Your task to perform on an android device: turn on airplane mode Image 0: 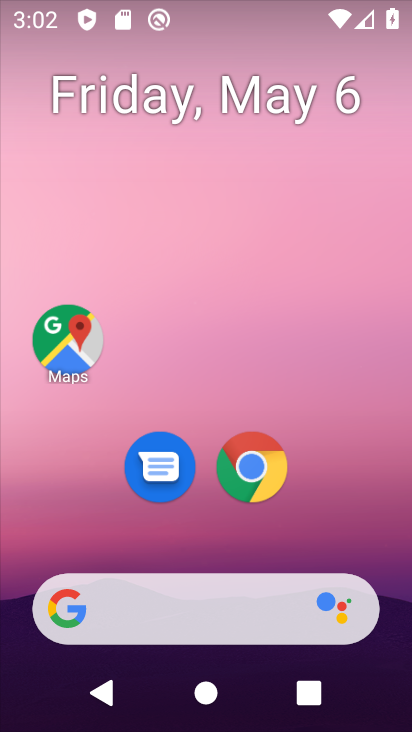
Step 0: drag from (401, 638) to (410, 674)
Your task to perform on an android device: turn on airplane mode Image 1: 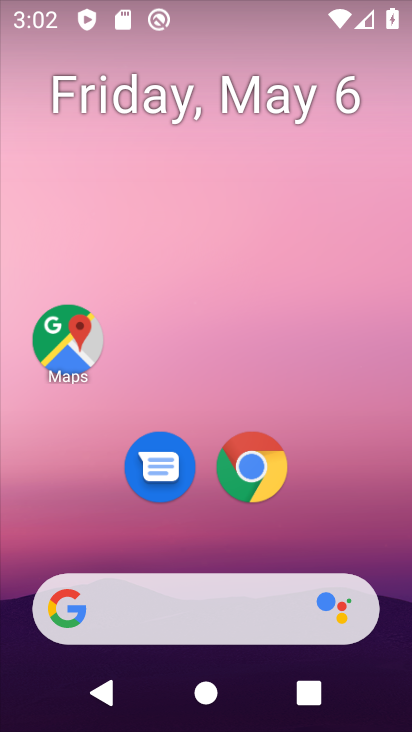
Step 1: drag from (396, 671) to (367, 231)
Your task to perform on an android device: turn on airplane mode Image 2: 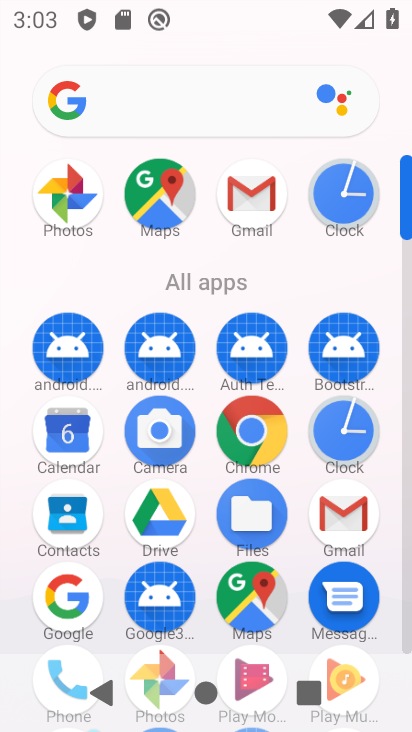
Step 2: click (406, 62)
Your task to perform on an android device: turn on airplane mode Image 3: 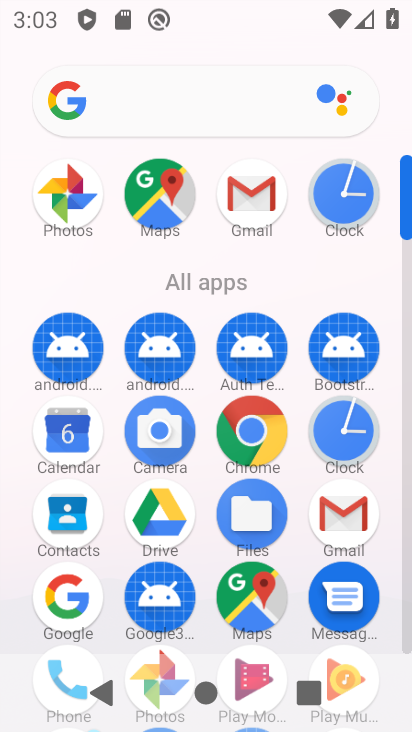
Step 3: drag from (403, 142) to (405, 58)
Your task to perform on an android device: turn on airplane mode Image 4: 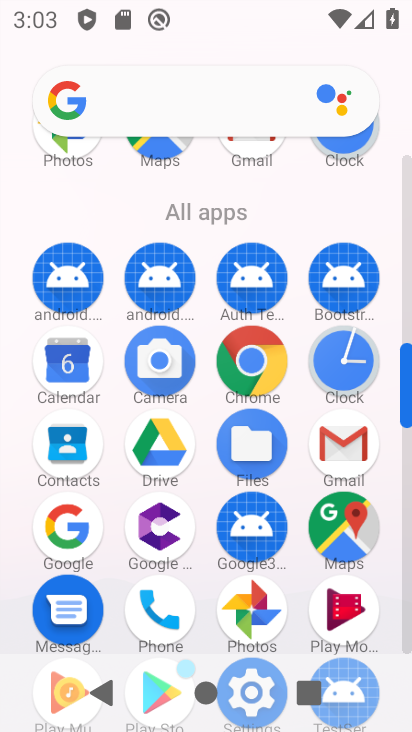
Step 4: drag from (404, 348) to (403, 231)
Your task to perform on an android device: turn on airplane mode Image 5: 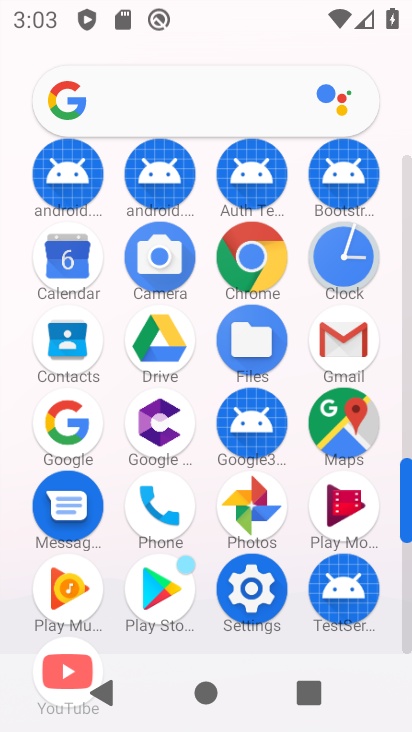
Step 5: click (258, 585)
Your task to perform on an android device: turn on airplane mode Image 6: 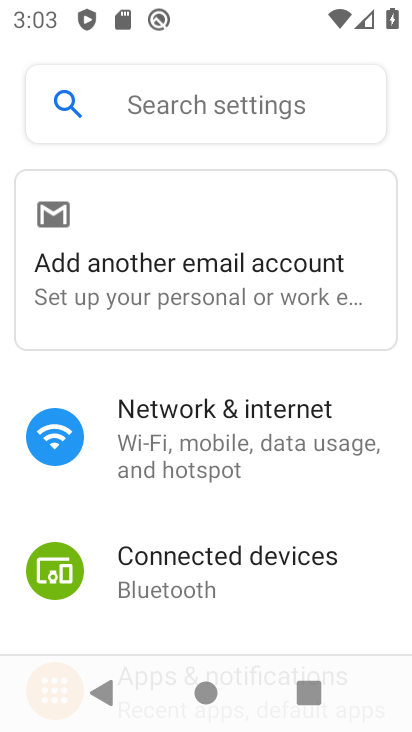
Step 6: click (164, 445)
Your task to perform on an android device: turn on airplane mode Image 7: 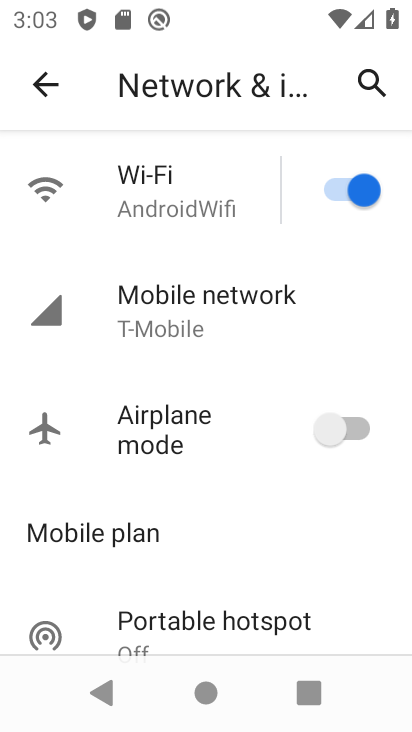
Step 7: click (351, 425)
Your task to perform on an android device: turn on airplane mode Image 8: 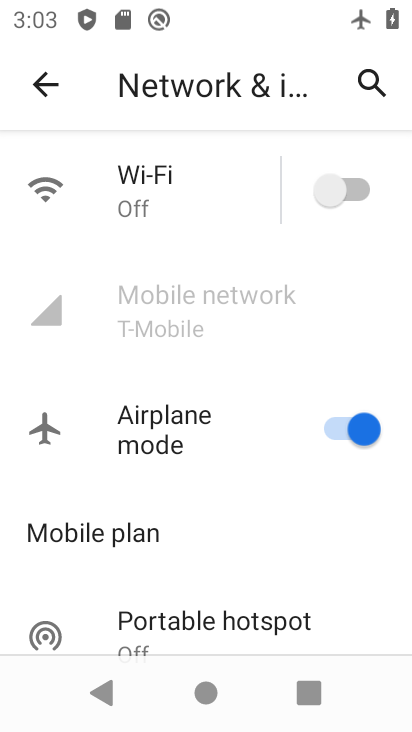
Step 8: task complete